Your task to perform on an android device: Open CNN.com Image 0: 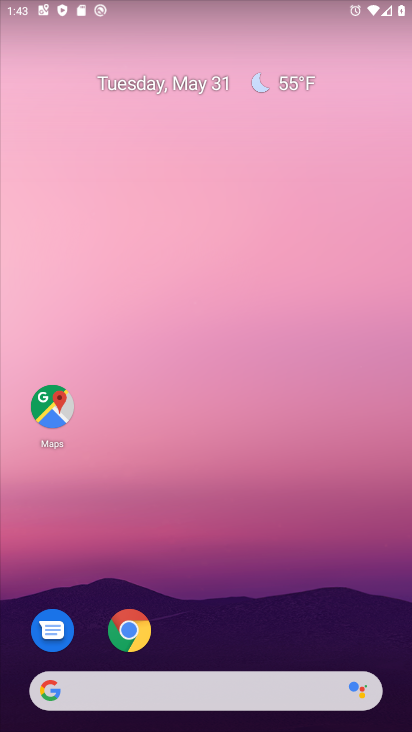
Step 0: drag from (203, 653) to (243, 218)
Your task to perform on an android device: Open CNN.com Image 1: 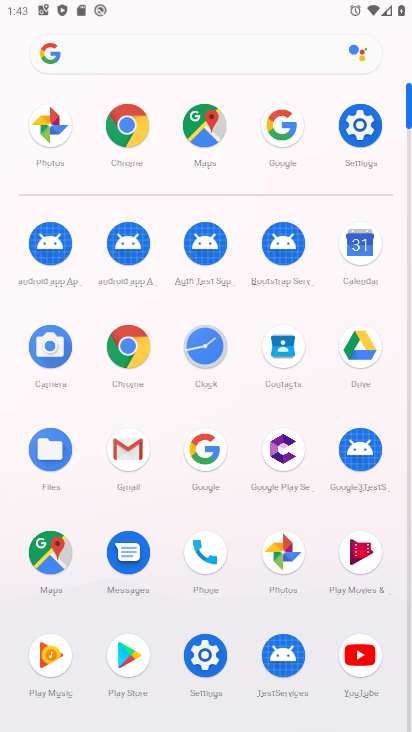
Step 1: click (195, 451)
Your task to perform on an android device: Open CNN.com Image 2: 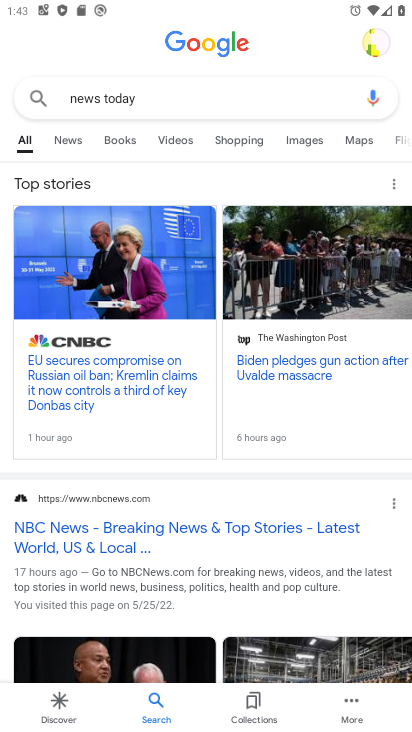
Step 2: click (139, 93)
Your task to perform on an android device: Open CNN.com Image 3: 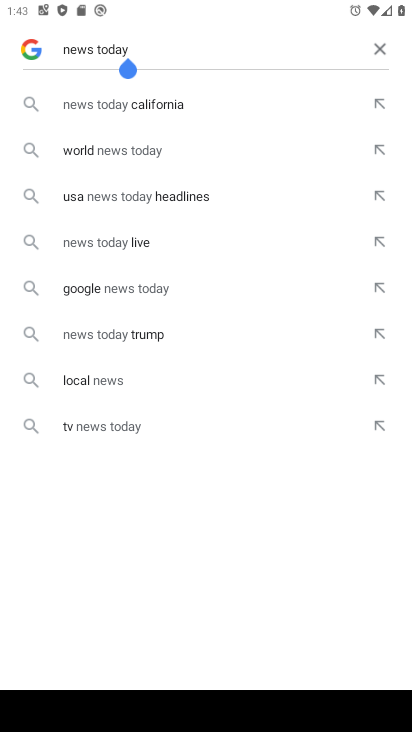
Step 3: click (373, 52)
Your task to perform on an android device: Open CNN.com Image 4: 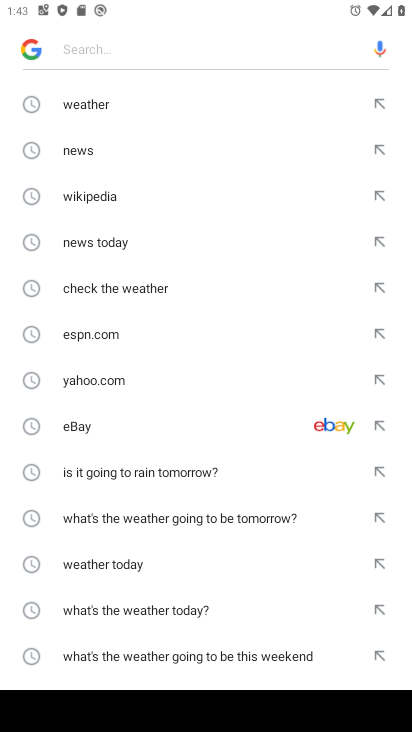
Step 4: drag from (95, 665) to (148, 246)
Your task to perform on an android device: Open CNN.com Image 5: 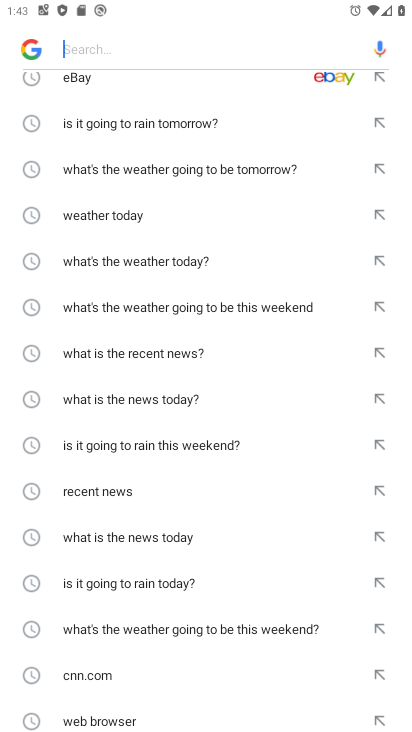
Step 5: click (100, 673)
Your task to perform on an android device: Open CNN.com Image 6: 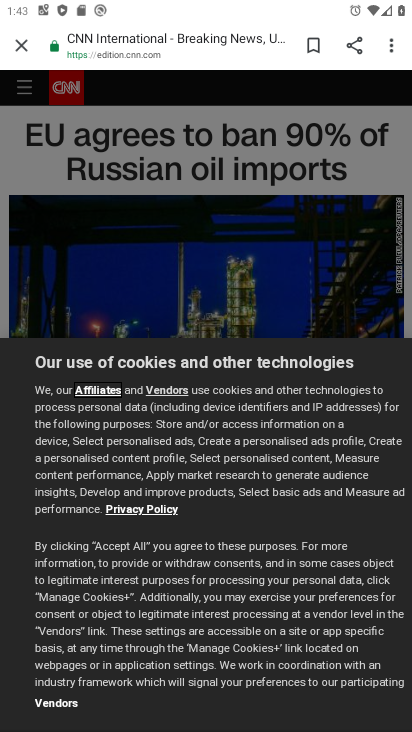
Step 6: task complete